Your task to perform on an android device: toggle notifications settings in the gmail app Image 0: 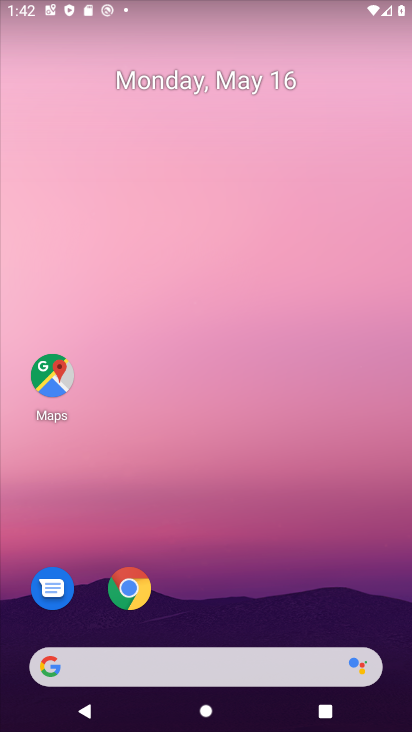
Step 0: drag from (242, 568) to (238, 87)
Your task to perform on an android device: toggle notifications settings in the gmail app Image 1: 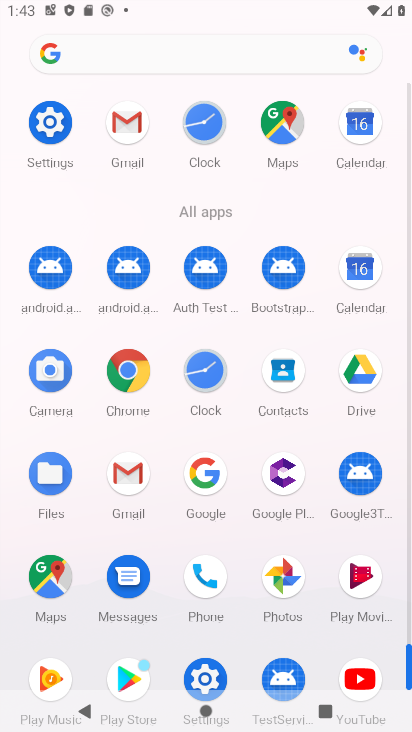
Step 1: click (128, 125)
Your task to perform on an android device: toggle notifications settings in the gmail app Image 2: 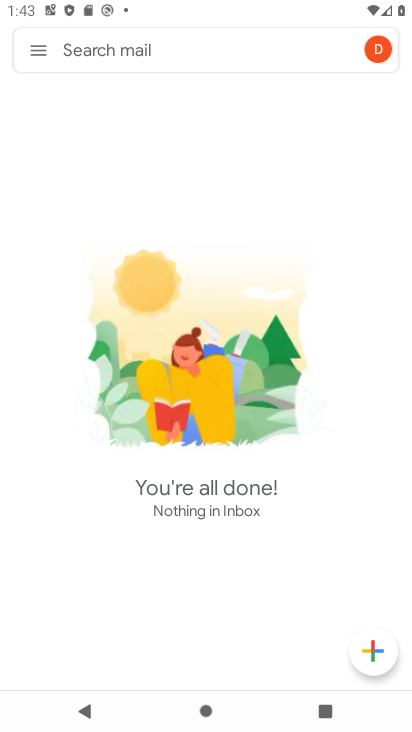
Step 2: click (36, 52)
Your task to perform on an android device: toggle notifications settings in the gmail app Image 3: 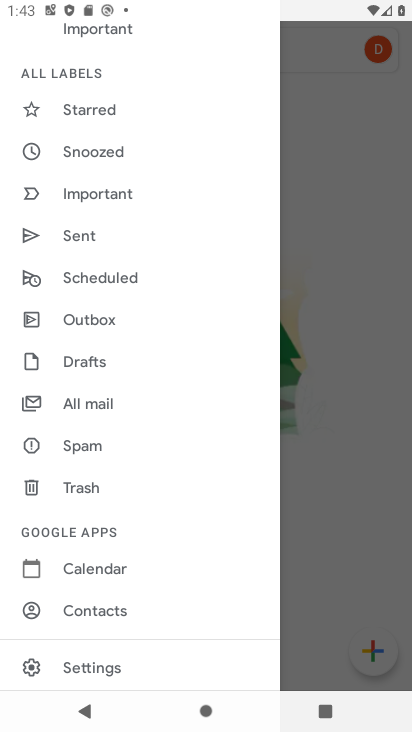
Step 3: click (90, 668)
Your task to perform on an android device: toggle notifications settings in the gmail app Image 4: 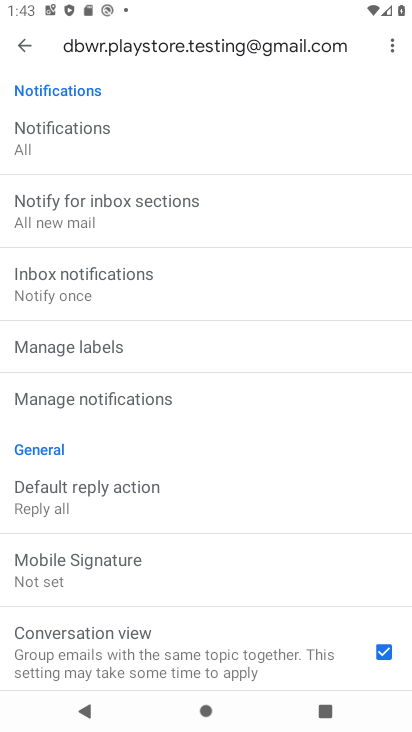
Step 4: click (99, 402)
Your task to perform on an android device: toggle notifications settings in the gmail app Image 5: 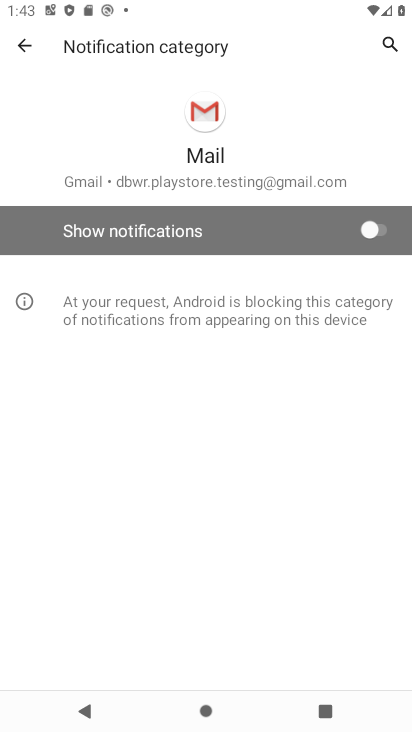
Step 5: click (371, 225)
Your task to perform on an android device: toggle notifications settings in the gmail app Image 6: 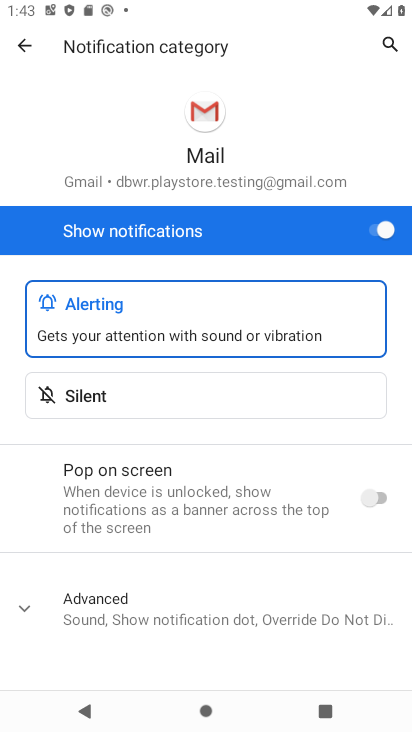
Step 6: task complete